Your task to perform on an android device: Go to location settings Image 0: 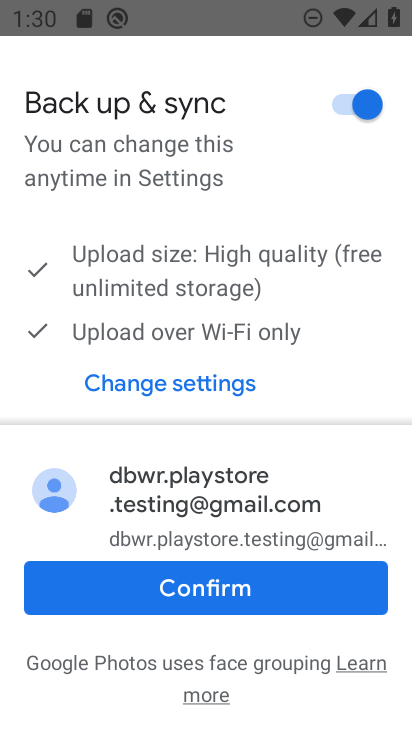
Step 0: press home button
Your task to perform on an android device: Go to location settings Image 1: 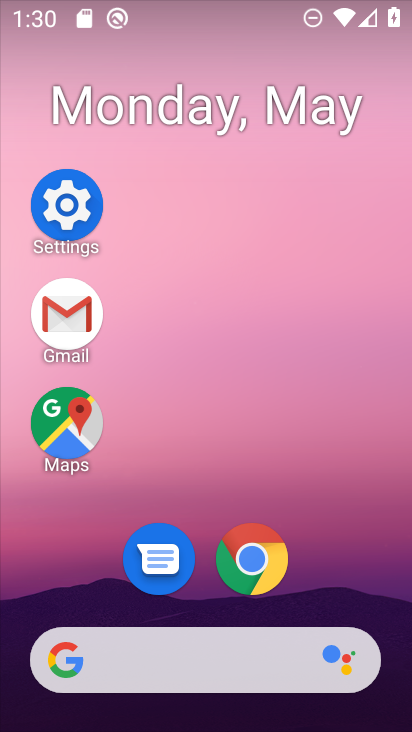
Step 1: click (69, 198)
Your task to perform on an android device: Go to location settings Image 2: 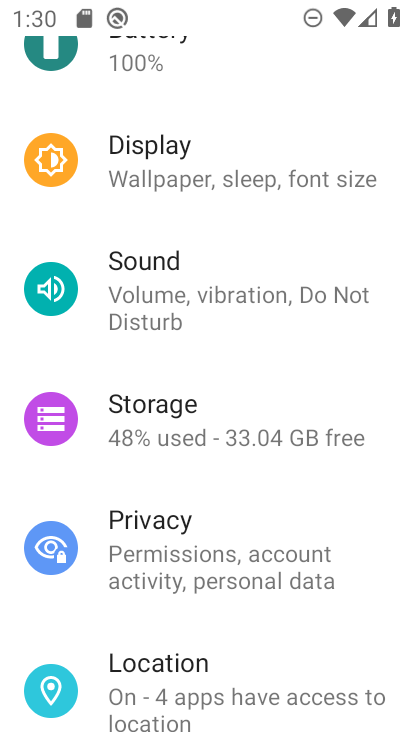
Step 2: click (187, 646)
Your task to perform on an android device: Go to location settings Image 3: 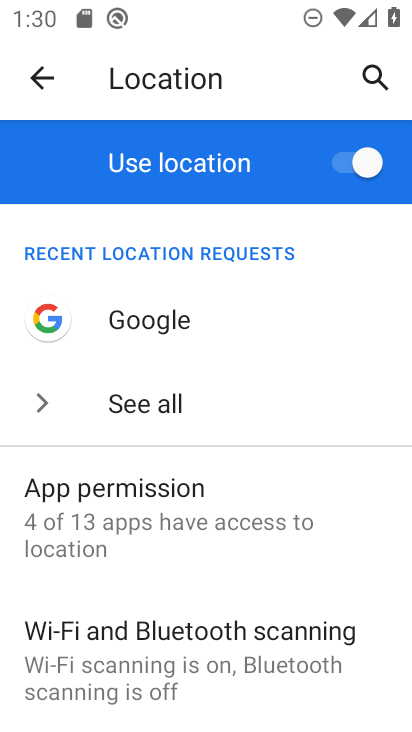
Step 3: task complete